Your task to perform on an android device: change keyboard looks Image 0: 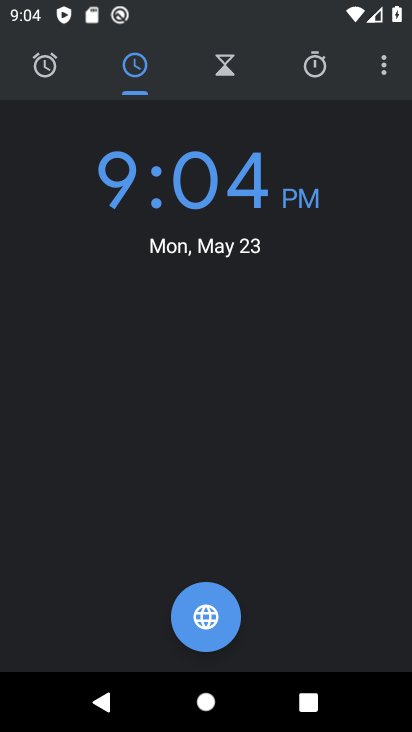
Step 0: press home button
Your task to perform on an android device: change keyboard looks Image 1: 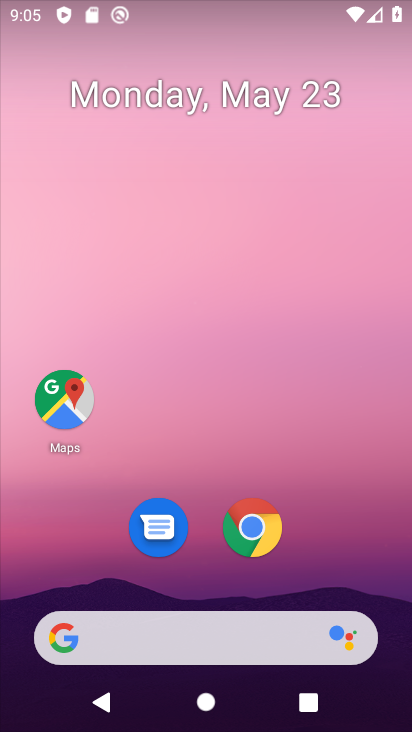
Step 1: drag from (326, 515) to (289, 60)
Your task to perform on an android device: change keyboard looks Image 2: 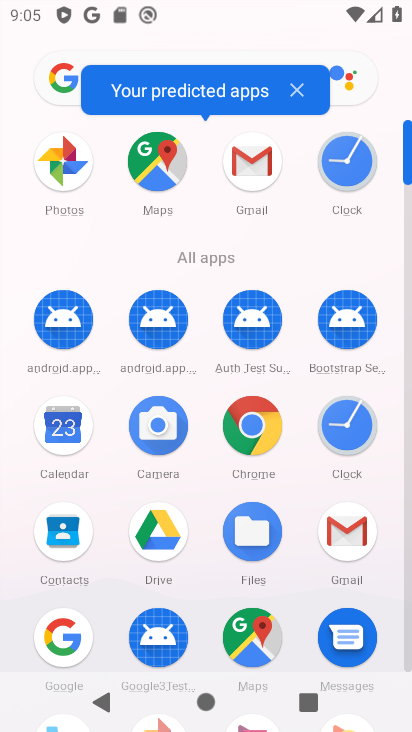
Step 2: drag from (385, 582) to (385, 293)
Your task to perform on an android device: change keyboard looks Image 3: 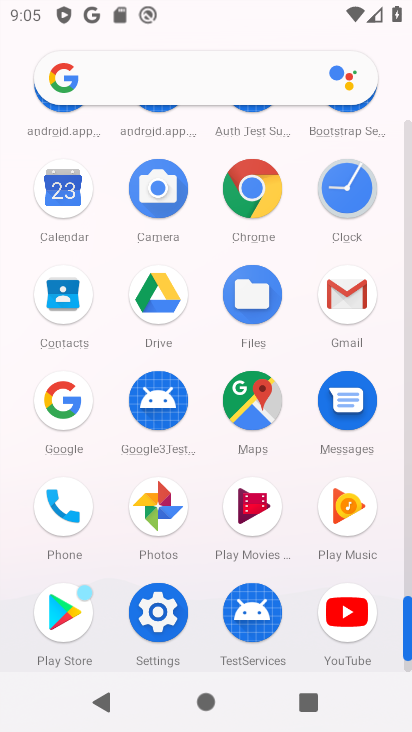
Step 3: click (116, 632)
Your task to perform on an android device: change keyboard looks Image 4: 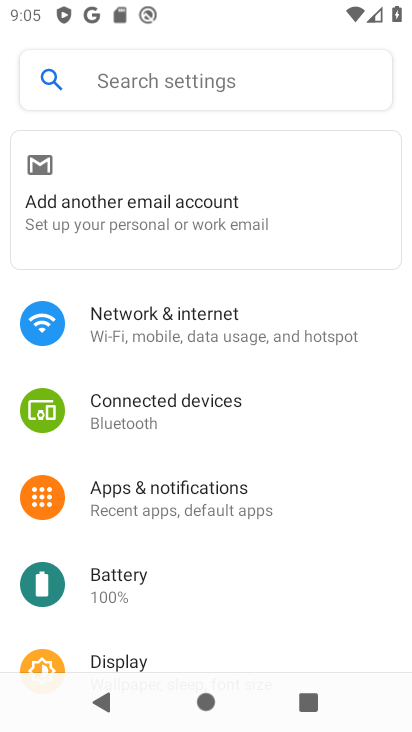
Step 4: drag from (288, 540) to (298, 223)
Your task to perform on an android device: change keyboard looks Image 5: 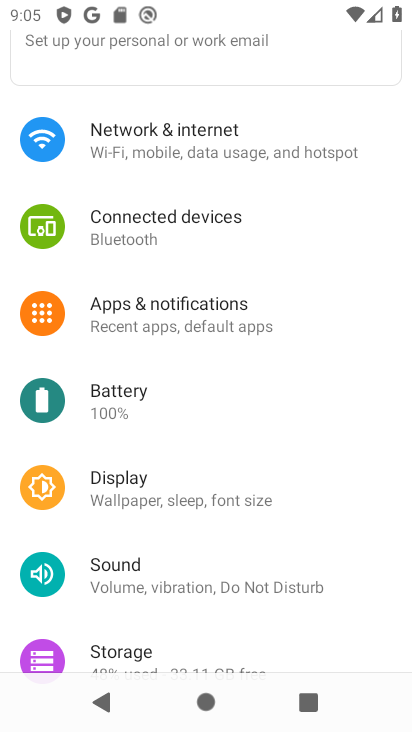
Step 5: drag from (274, 672) to (317, 235)
Your task to perform on an android device: change keyboard looks Image 6: 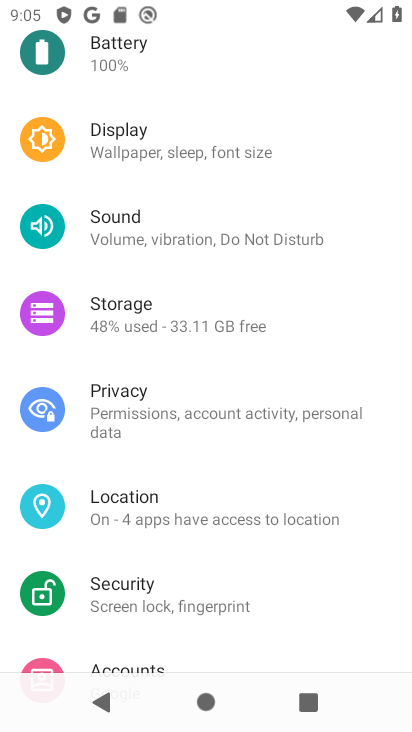
Step 6: drag from (249, 581) to (335, 157)
Your task to perform on an android device: change keyboard looks Image 7: 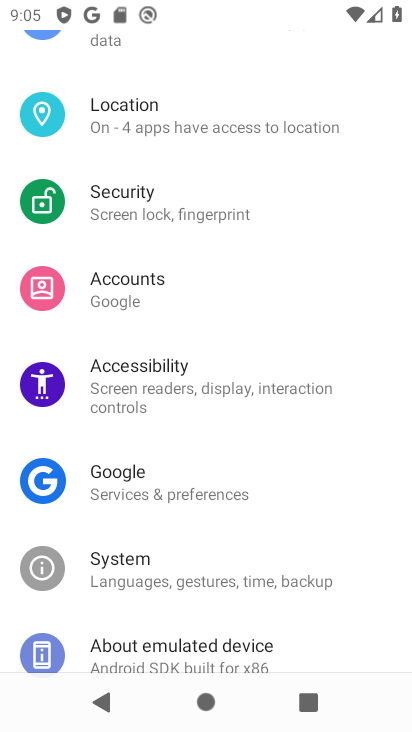
Step 7: drag from (354, 640) to (374, 99)
Your task to perform on an android device: change keyboard looks Image 8: 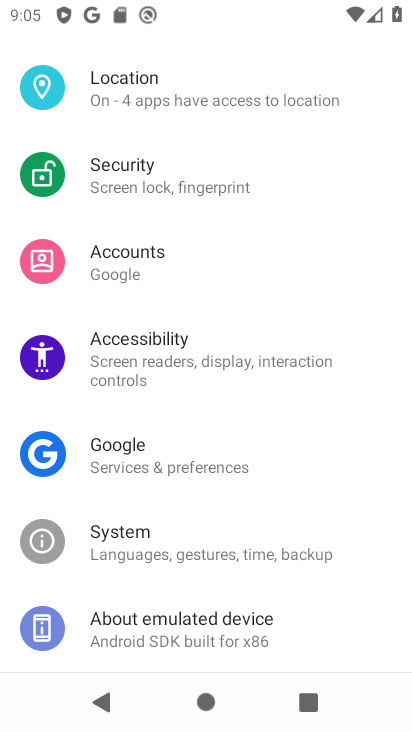
Step 8: click (242, 557)
Your task to perform on an android device: change keyboard looks Image 9: 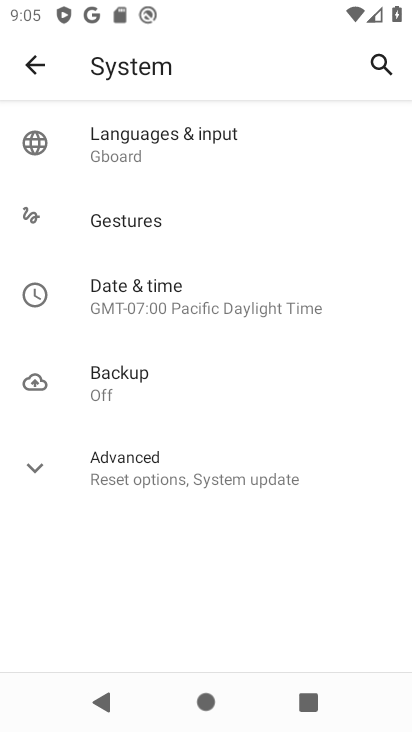
Step 9: click (160, 129)
Your task to perform on an android device: change keyboard looks Image 10: 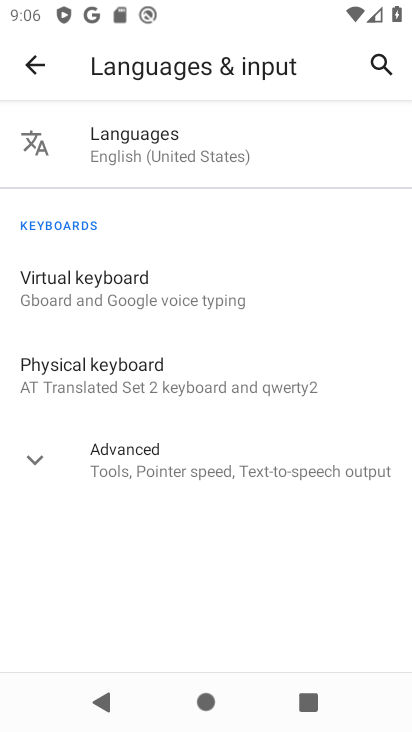
Step 10: click (115, 297)
Your task to perform on an android device: change keyboard looks Image 11: 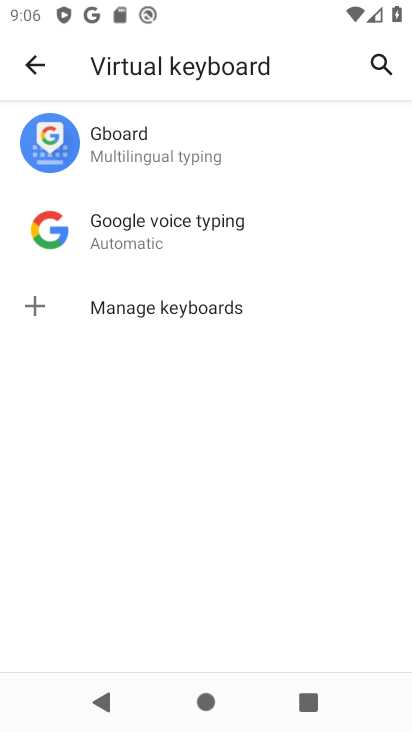
Step 11: click (149, 139)
Your task to perform on an android device: change keyboard looks Image 12: 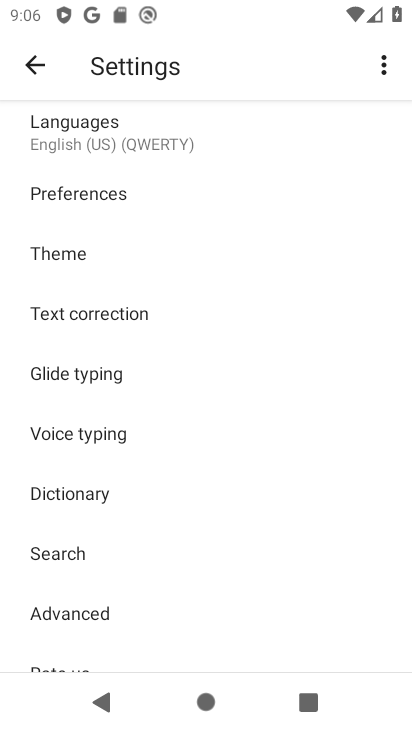
Step 12: click (100, 261)
Your task to perform on an android device: change keyboard looks Image 13: 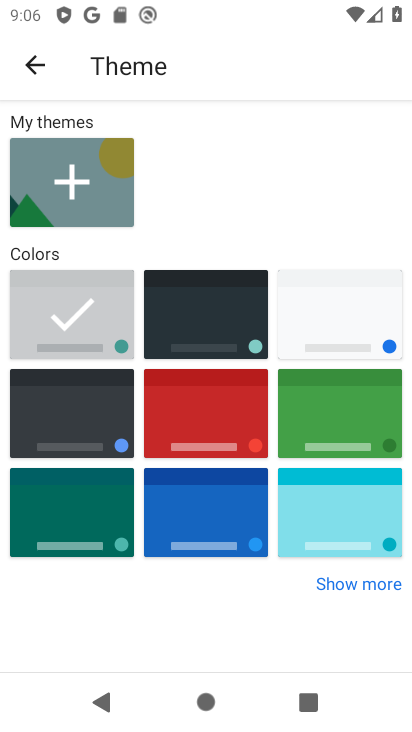
Step 13: click (229, 325)
Your task to perform on an android device: change keyboard looks Image 14: 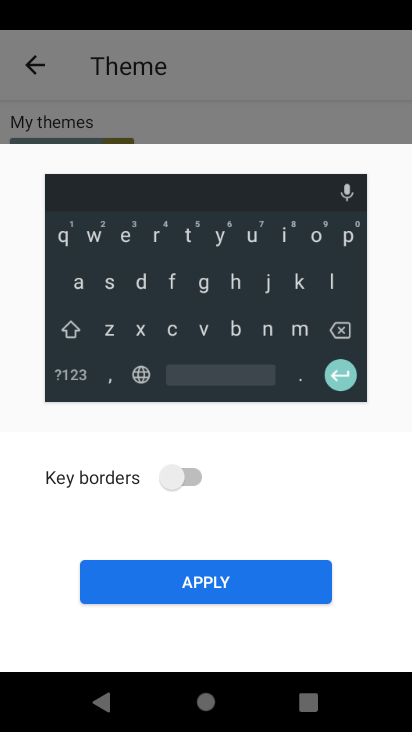
Step 14: click (304, 570)
Your task to perform on an android device: change keyboard looks Image 15: 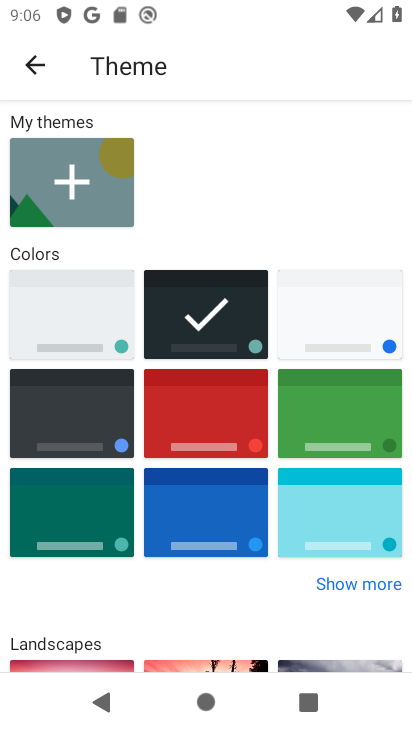
Step 15: task complete